Your task to perform on an android device: Go to Reddit.com Image 0: 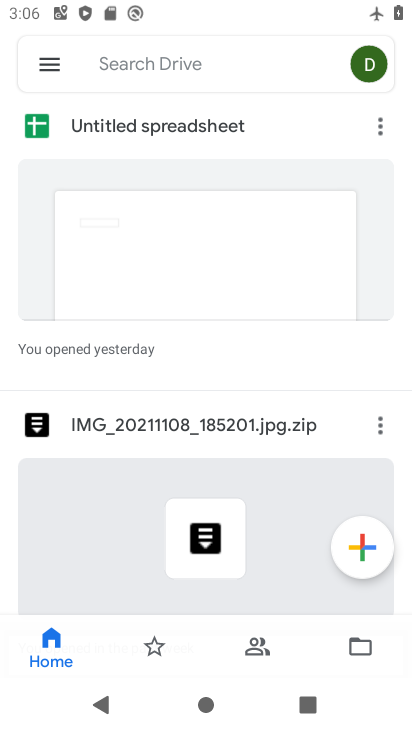
Step 0: press home button
Your task to perform on an android device: Go to Reddit.com Image 1: 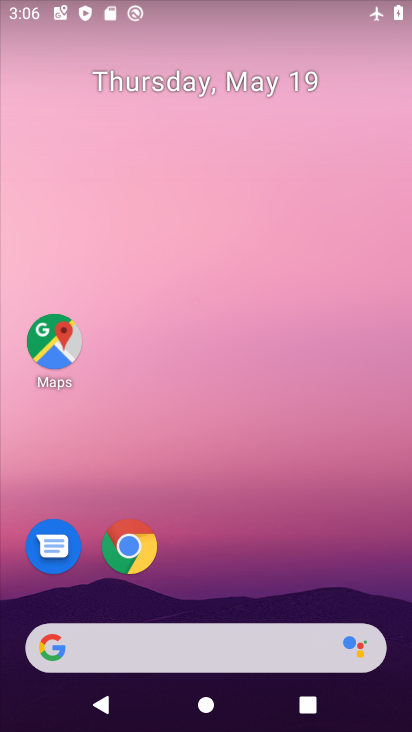
Step 1: click (129, 545)
Your task to perform on an android device: Go to Reddit.com Image 2: 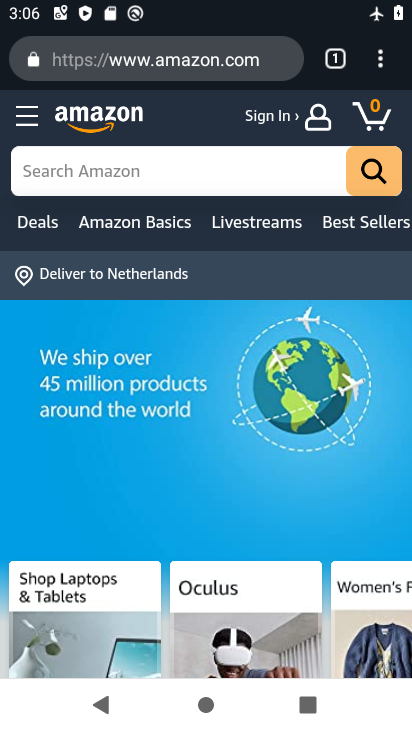
Step 2: click (213, 54)
Your task to perform on an android device: Go to Reddit.com Image 3: 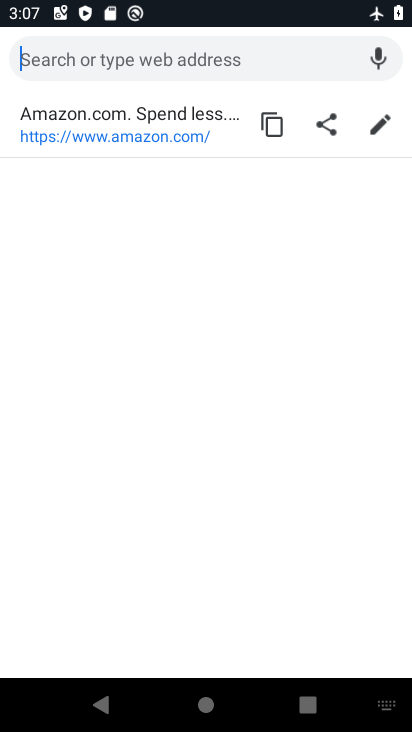
Step 3: type "Reddit.com"
Your task to perform on an android device: Go to Reddit.com Image 4: 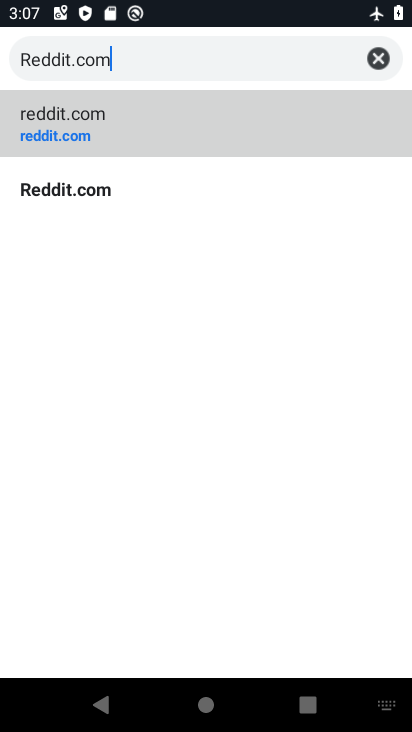
Step 4: type ""
Your task to perform on an android device: Go to Reddit.com Image 5: 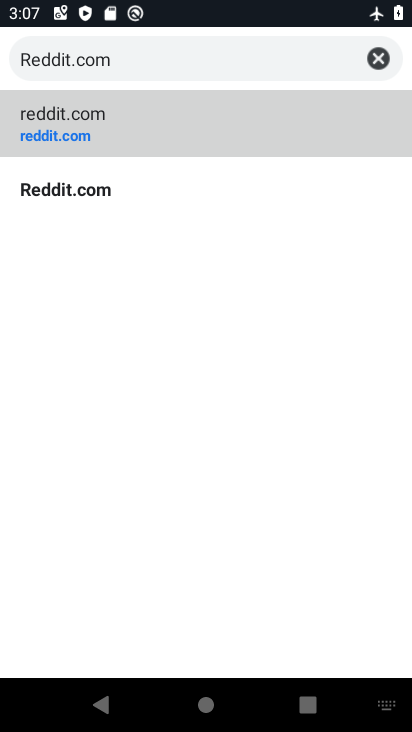
Step 5: click (64, 186)
Your task to perform on an android device: Go to Reddit.com Image 6: 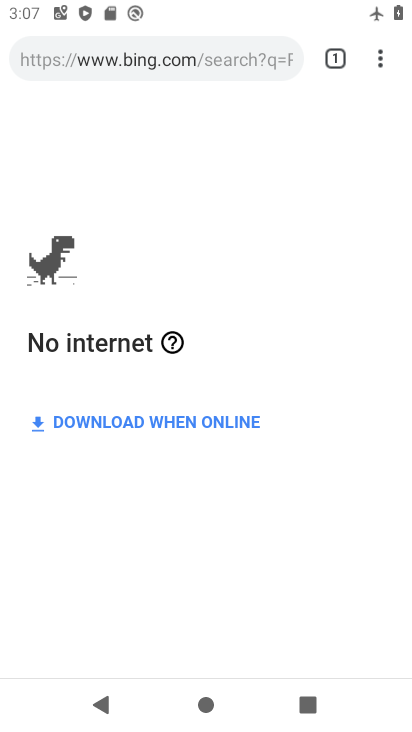
Step 6: task complete